Your task to perform on an android device: Is it going to rain today? Image 0: 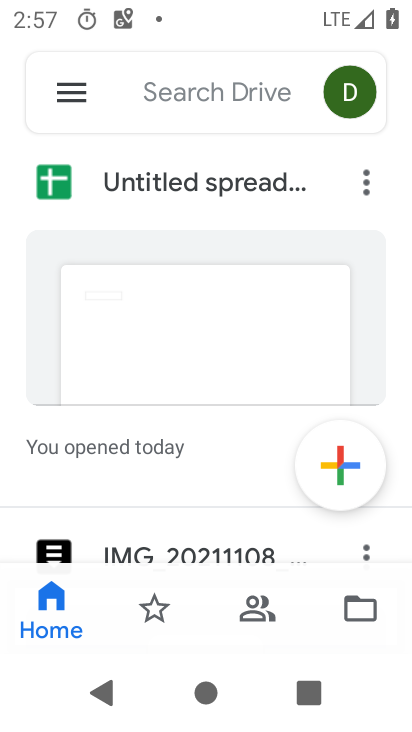
Step 0: press home button
Your task to perform on an android device: Is it going to rain today? Image 1: 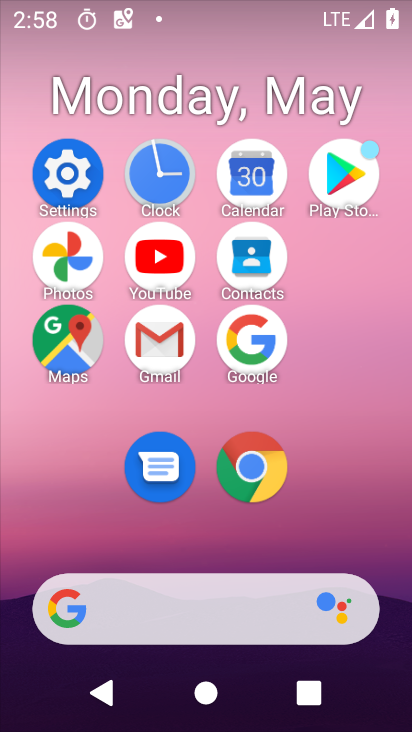
Step 1: click (236, 342)
Your task to perform on an android device: Is it going to rain today? Image 2: 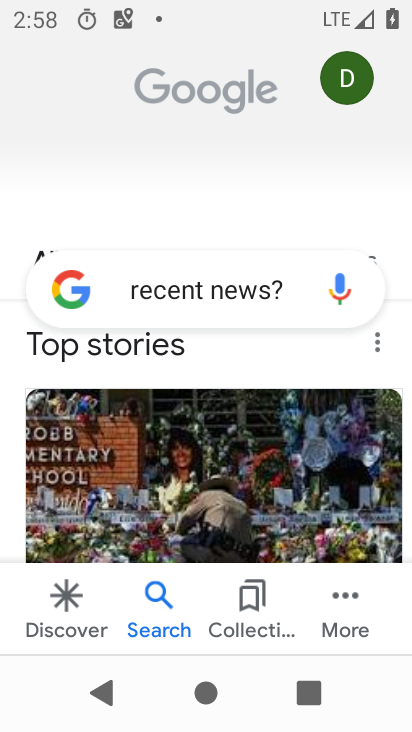
Step 2: drag from (291, 288) to (227, 288)
Your task to perform on an android device: Is it going to rain today? Image 3: 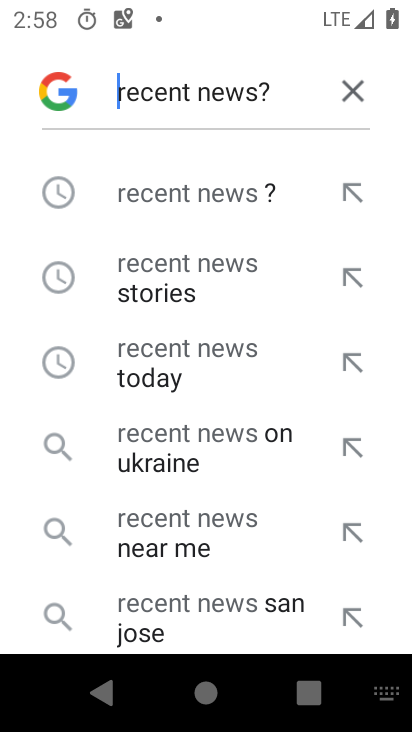
Step 3: click (348, 99)
Your task to perform on an android device: Is it going to rain today? Image 4: 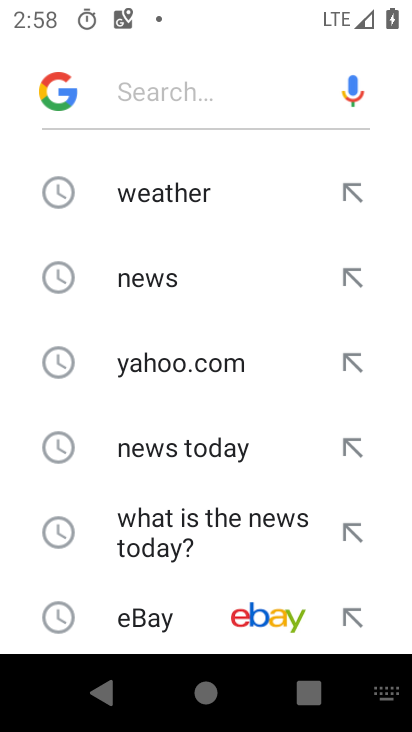
Step 4: drag from (194, 480) to (196, 213)
Your task to perform on an android device: Is it going to rain today? Image 5: 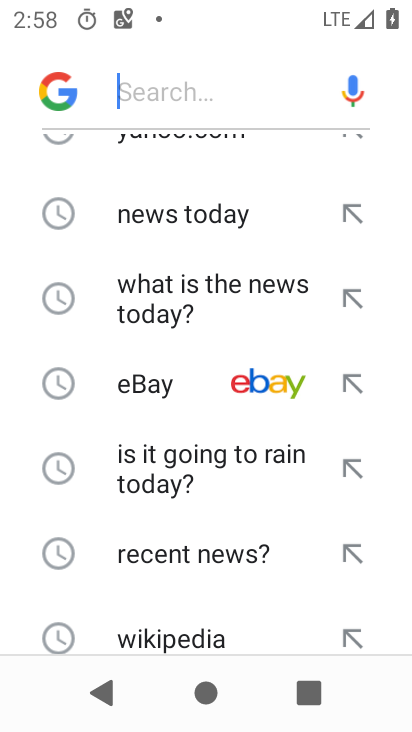
Step 5: drag from (190, 192) to (205, 623)
Your task to perform on an android device: Is it going to rain today? Image 6: 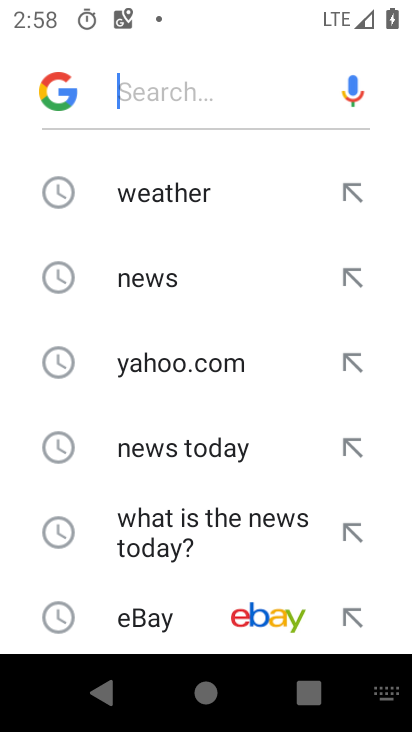
Step 6: click (195, 211)
Your task to perform on an android device: Is it going to rain today? Image 7: 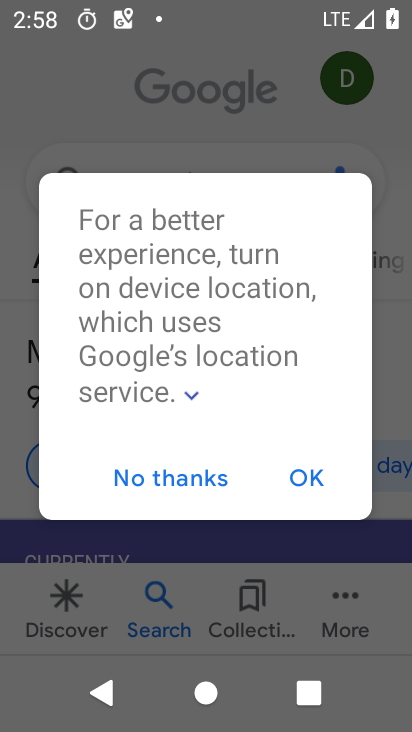
Step 7: click (304, 469)
Your task to perform on an android device: Is it going to rain today? Image 8: 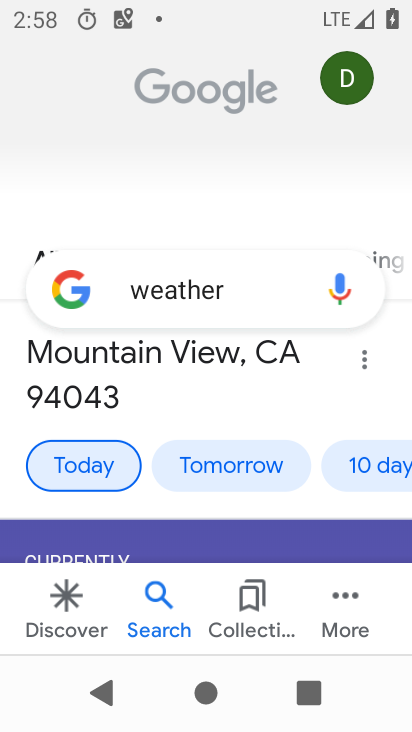
Step 8: task complete